Your task to perform on an android device: clear all cookies in the chrome app Image 0: 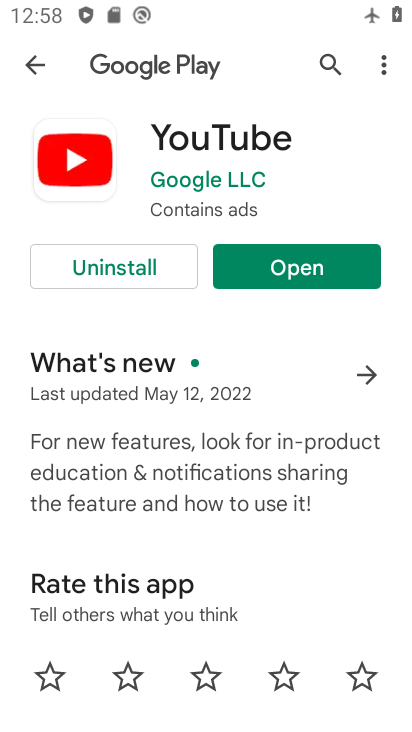
Step 0: press back button
Your task to perform on an android device: clear all cookies in the chrome app Image 1: 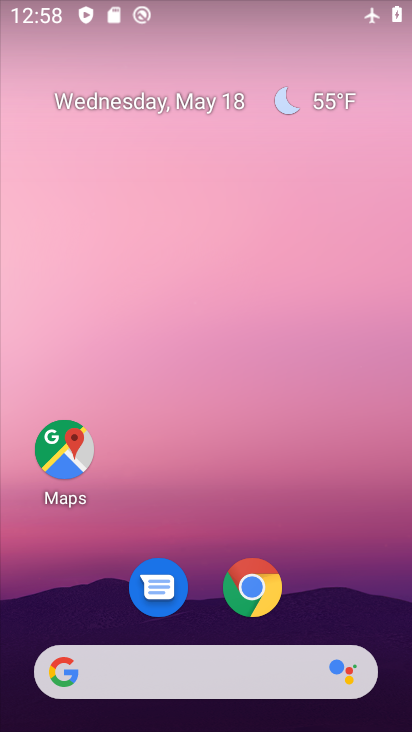
Step 1: click (260, 585)
Your task to perform on an android device: clear all cookies in the chrome app Image 2: 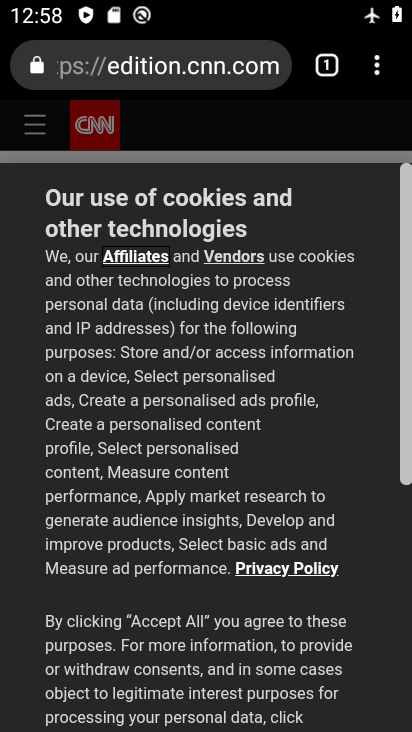
Step 2: drag from (367, 55) to (166, 366)
Your task to perform on an android device: clear all cookies in the chrome app Image 3: 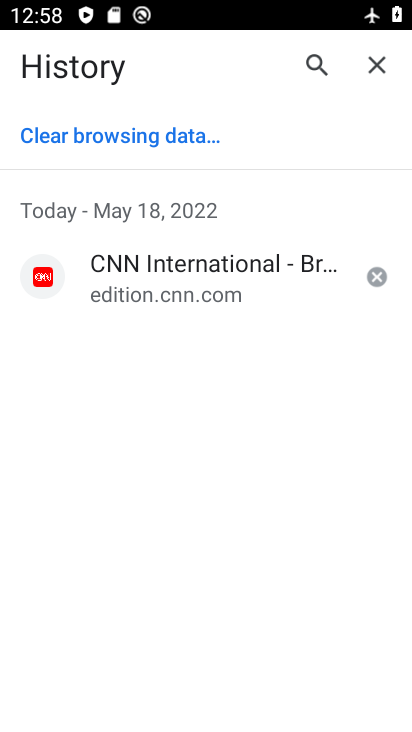
Step 3: click (93, 133)
Your task to perform on an android device: clear all cookies in the chrome app Image 4: 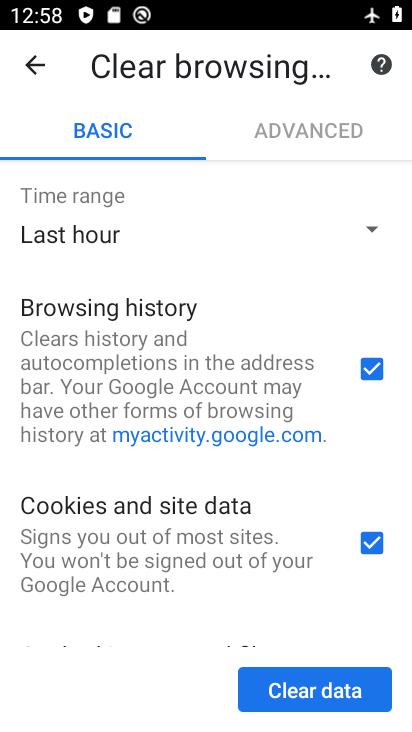
Step 4: click (367, 363)
Your task to perform on an android device: clear all cookies in the chrome app Image 5: 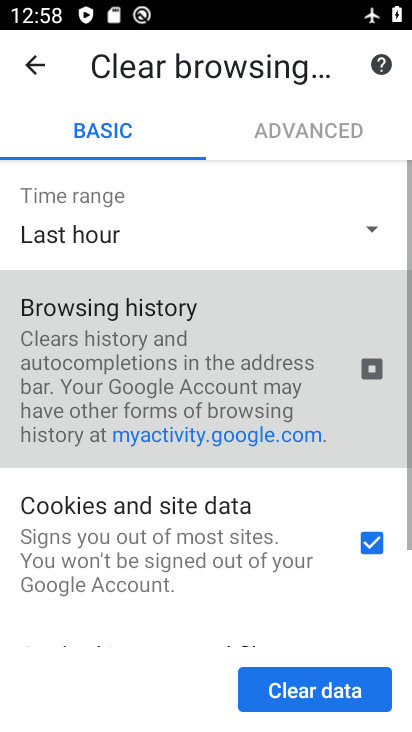
Step 5: drag from (253, 533) to (298, 181)
Your task to perform on an android device: clear all cookies in the chrome app Image 6: 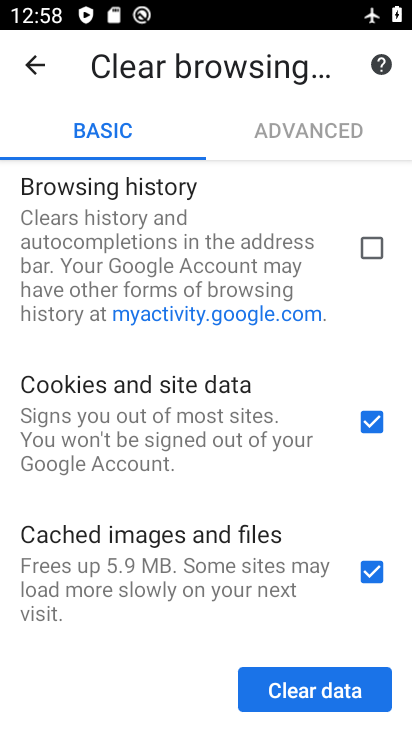
Step 6: click (373, 559)
Your task to perform on an android device: clear all cookies in the chrome app Image 7: 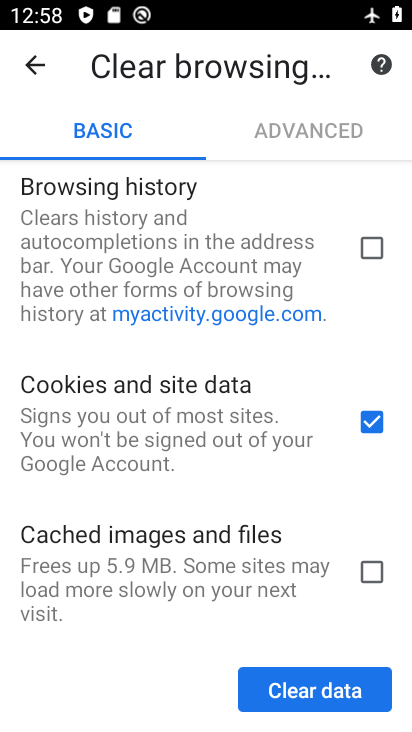
Step 7: click (355, 693)
Your task to perform on an android device: clear all cookies in the chrome app Image 8: 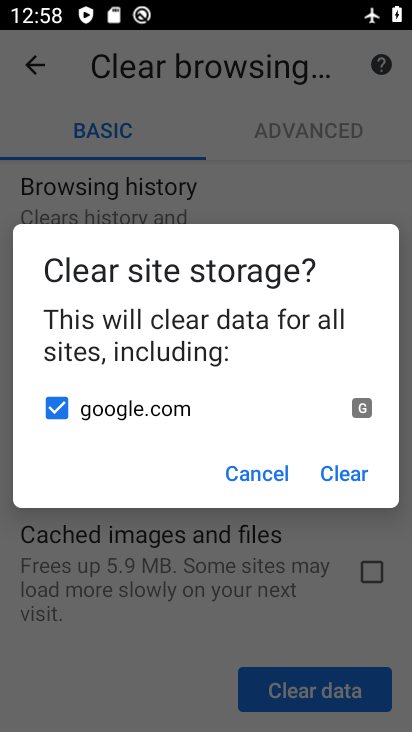
Step 8: click (344, 469)
Your task to perform on an android device: clear all cookies in the chrome app Image 9: 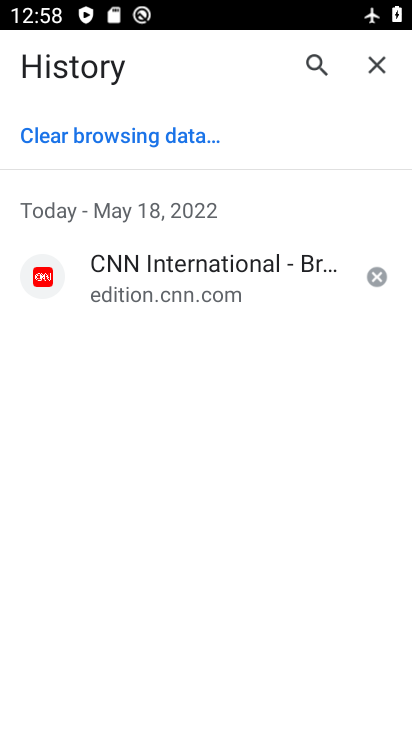
Step 9: task complete